Your task to perform on an android device: check data usage Image 0: 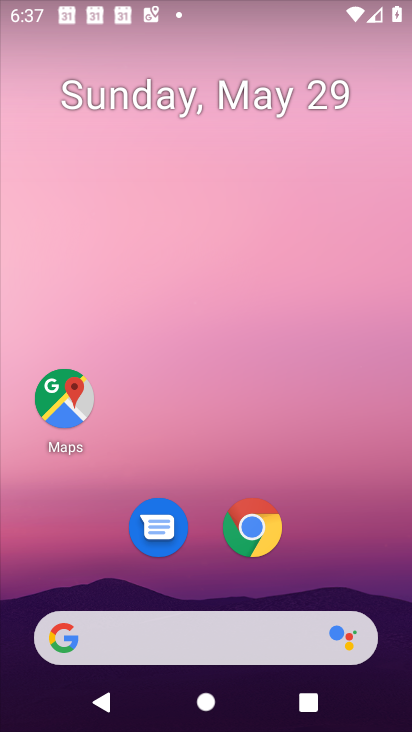
Step 0: drag from (379, 582) to (273, 54)
Your task to perform on an android device: check data usage Image 1: 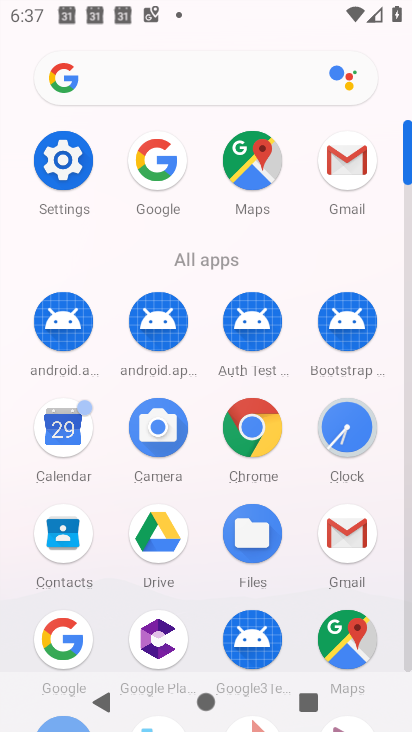
Step 1: click (76, 176)
Your task to perform on an android device: check data usage Image 2: 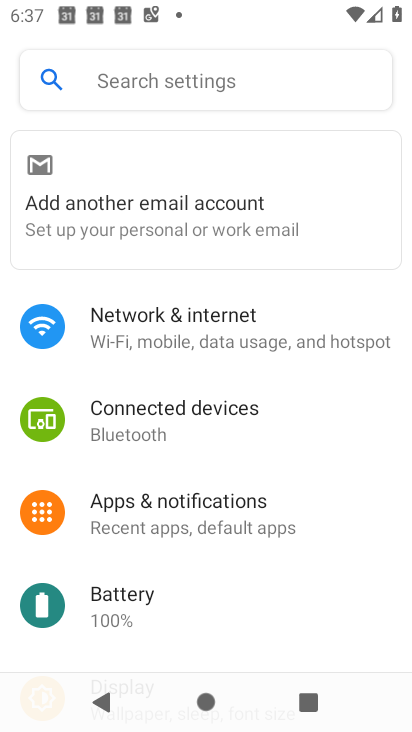
Step 2: click (137, 186)
Your task to perform on an android device: check data usage Image 3: 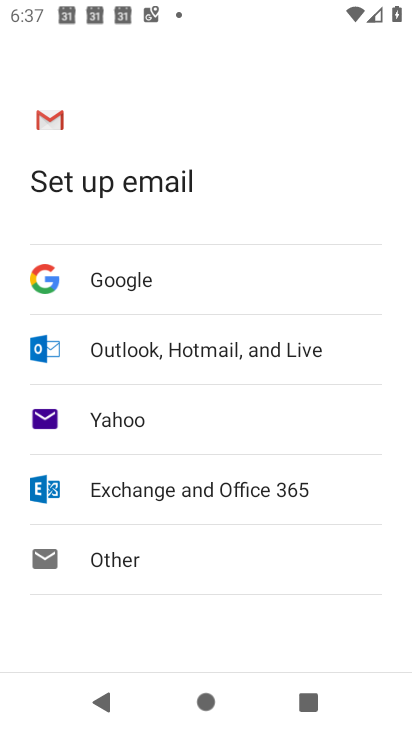
Step 3: press back button
Your task to perform on an android device: check data usage Image 4: 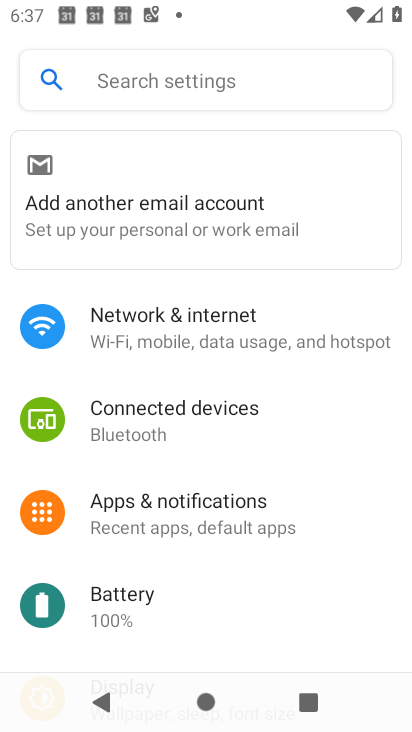
Step 4: click (191, 304)
Your task to perform on an android device: check data usage Image 5: 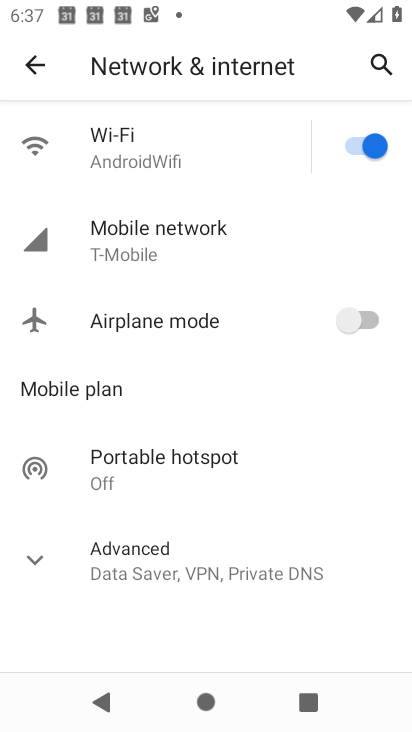
Step 5: click (154, 243)
Your task to perform on an android device: check data usage Image 6: 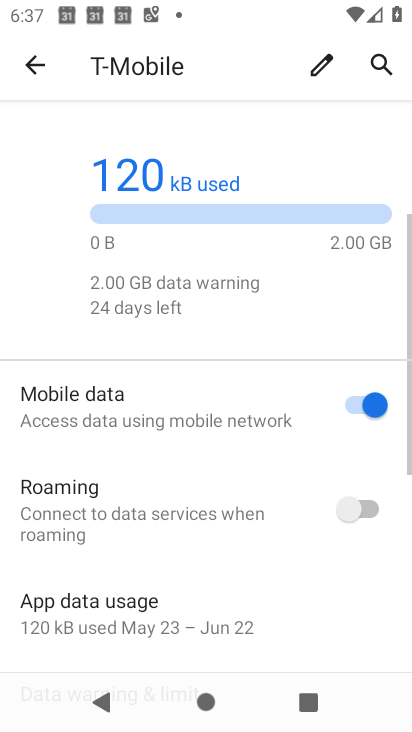
Step 6: drag from (85, 516) to (107, 294)
Your task to perform on an android device: check data usage Image 7: 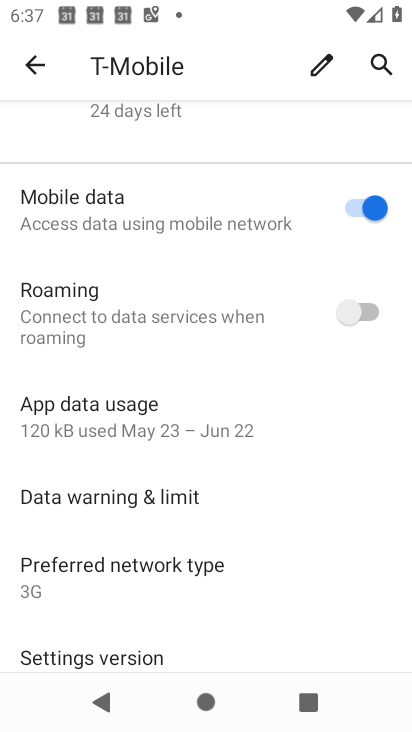
Step 7: click (69, 416)
Your task to perform on an android device: check data usage Image 8: 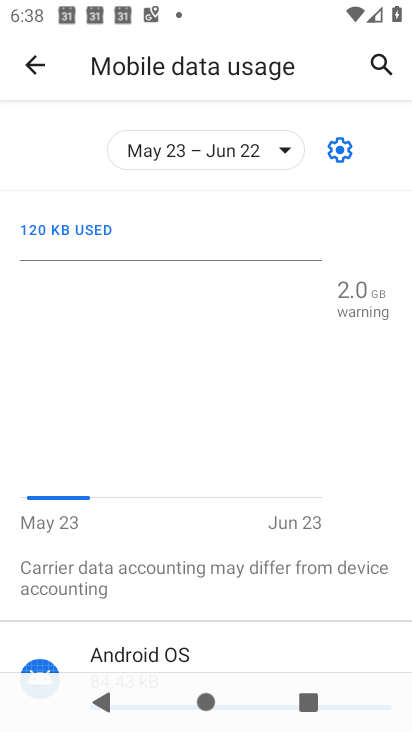
Step 8: task complete